Your task to perform on an android device: turn off notifications in google photos Image 0: 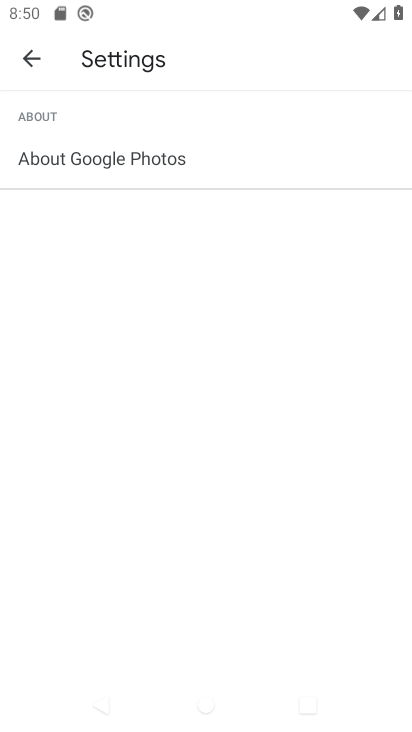
Step 0: click (21, 54)
Your task to perform on an android device: turn off notifications in google photos Image 1: 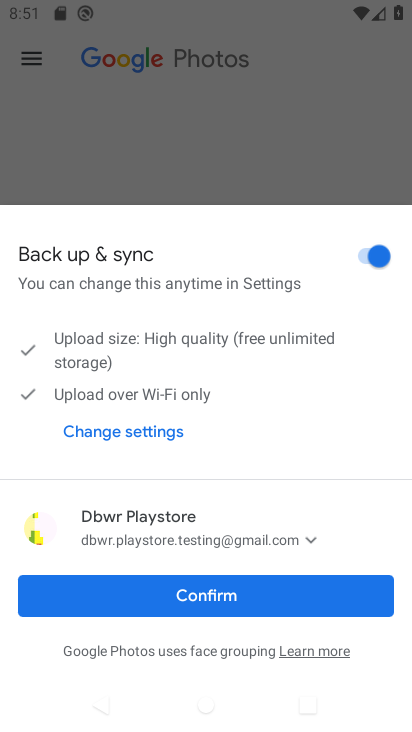
Step 1: click (212, 600)
Your task to perform on an android device: turn off notifications in google photos Image 2: 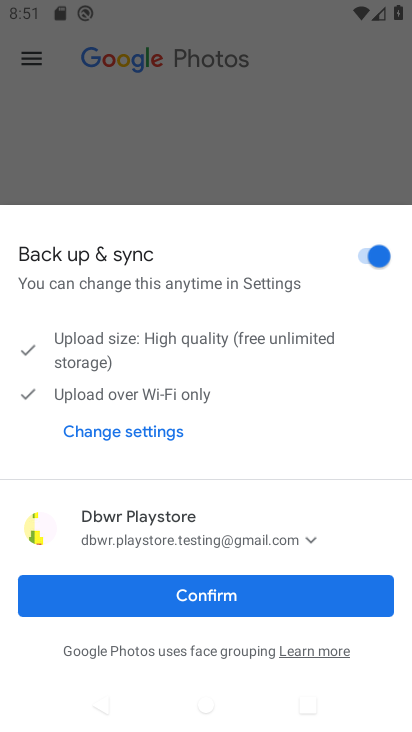
Step 2: click (217, 583)
Your task to perform on an android device: turn off notifications in google photos Image 3: 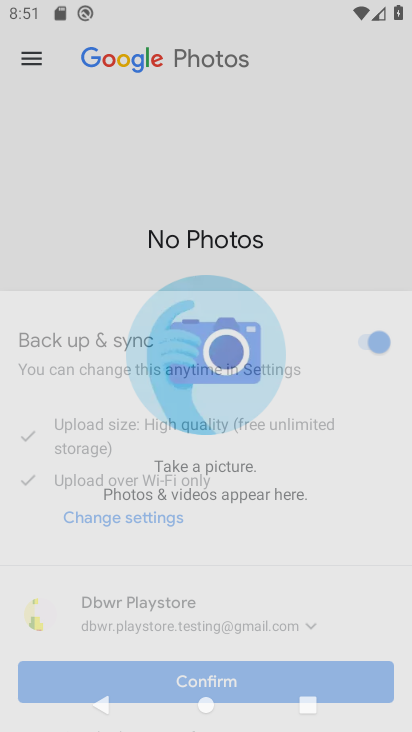
Step 3: click (219, 582)
Your task to perform on an android device: turn off notifications in google photos Image 4: 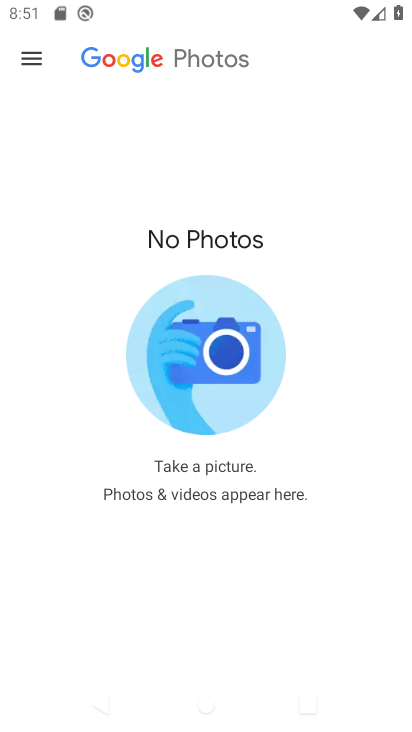
Step 4: click (226, 590)
Your task to perform on an android device: turn off notifications in google photos Image 5: 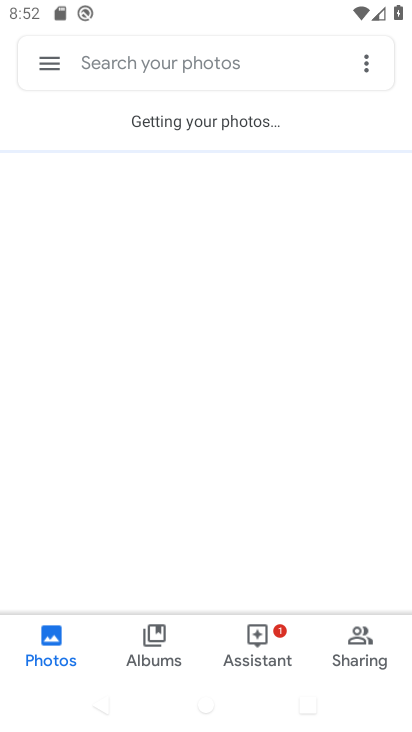
Step 5: click (54, 51)
Your task to perform on an android device: turn off notifications in google photos Image 6: 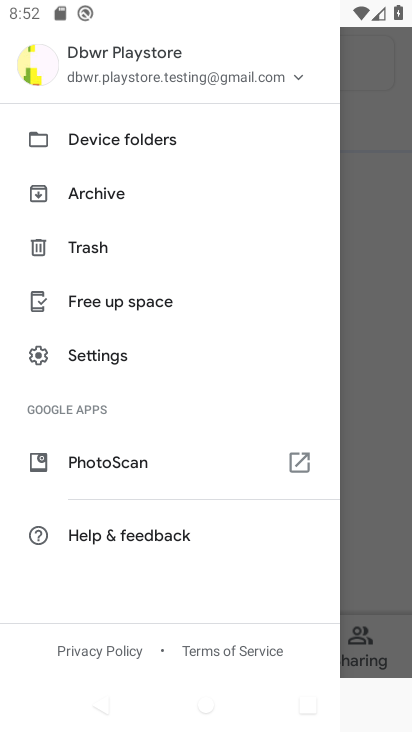
Step 6: click (78, 357)
Your task to perform on an android device: turn off notifications in google photos Image 7: 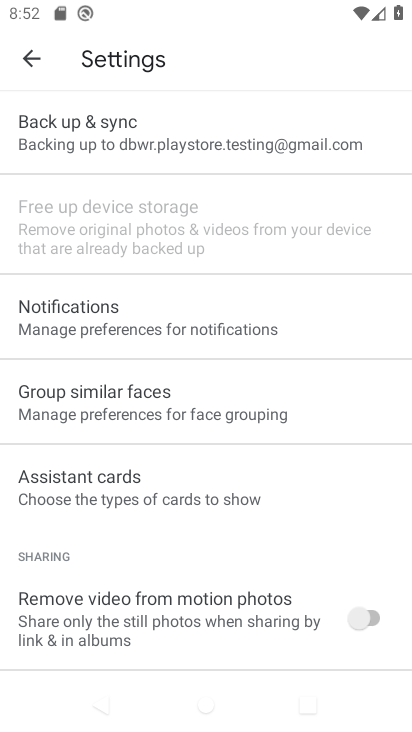
Step 7: click (79, 336)
Your task to perform on an android device: turn off notifications in google photos Image 8: 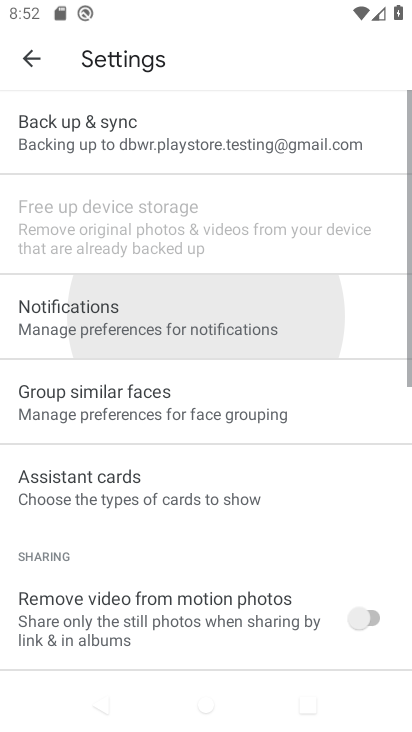
Step 8: click (79, 326)
Your task to perform on an android device: turn off notifications in google photos Image 9: 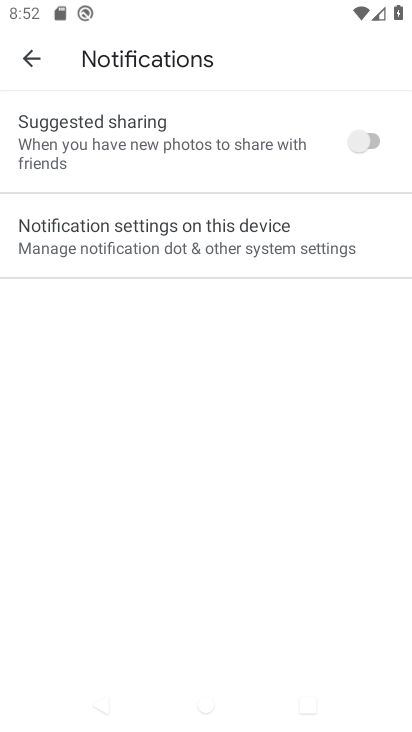
Step 9: click (220, 225)
Your task to perform on an android device: turn off notifications in google photos Image 10: 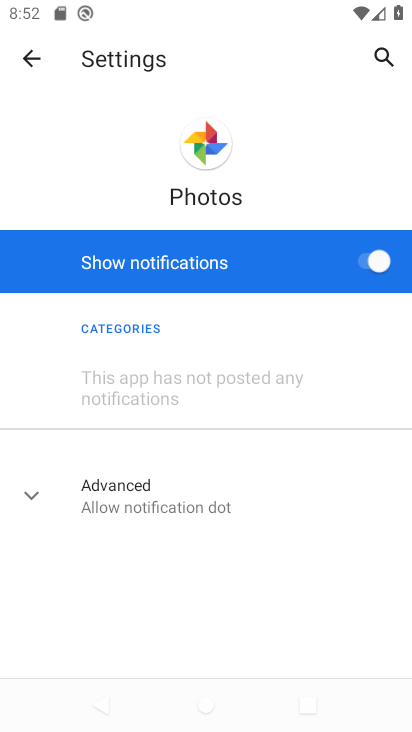
Step 10: click (378, 261)
Your task to perform on an android device: turn off notifications in google photos Image 11: 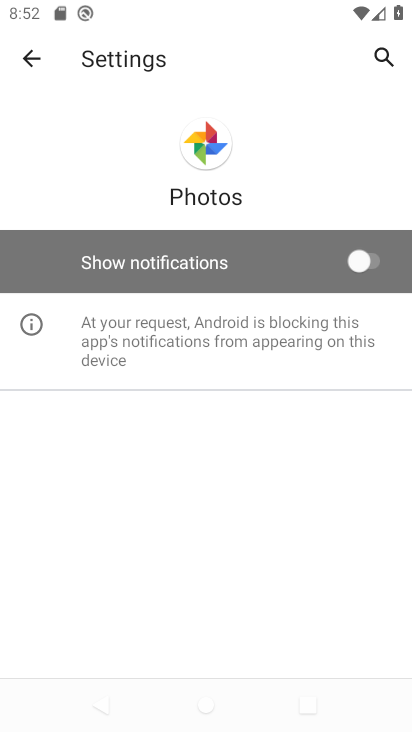
Step 11: task complete